Your task to perform on an android device: open app "Grab" (install if not already installed) Image 0: 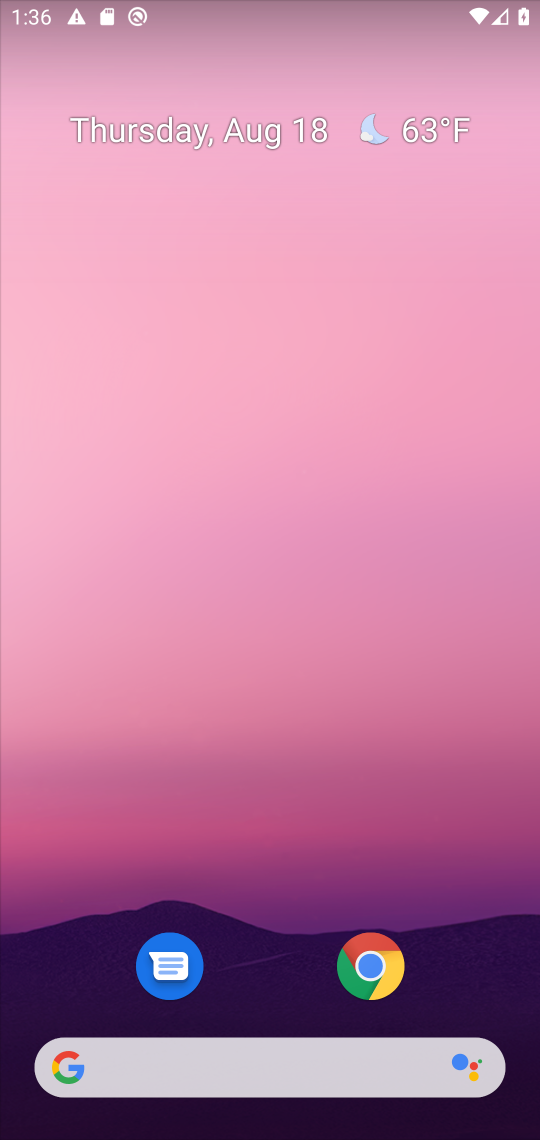
Step 0: press home button
Your task to perform on an android device: open app "Grab" (install if not already installed) Image 1: 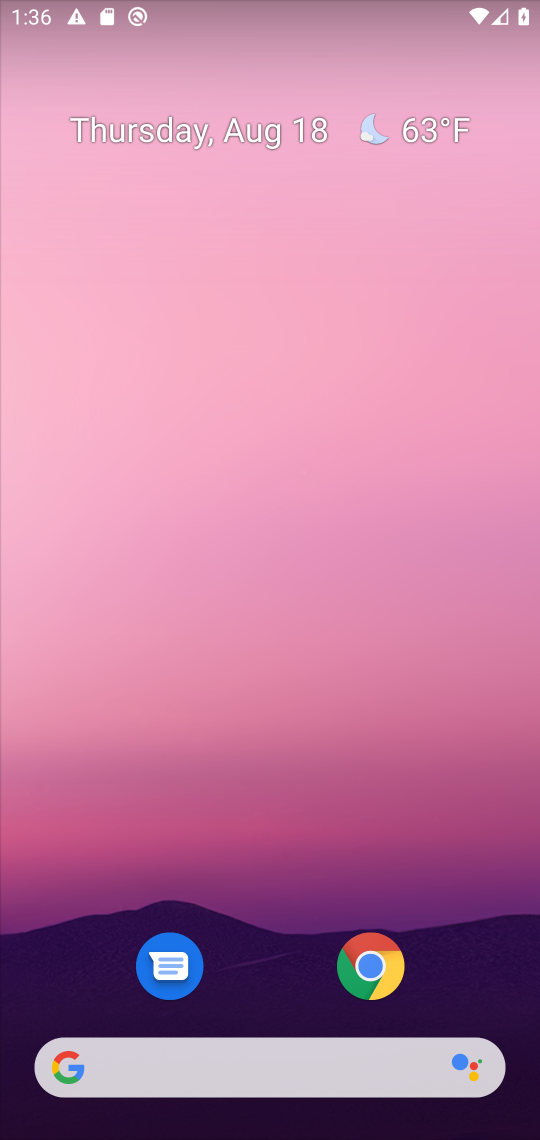
Step 1: drag from (272, 1022) to (379, 3)
Your task to perform on an android device: open app "Grab" (install if not already installed) Image 2: 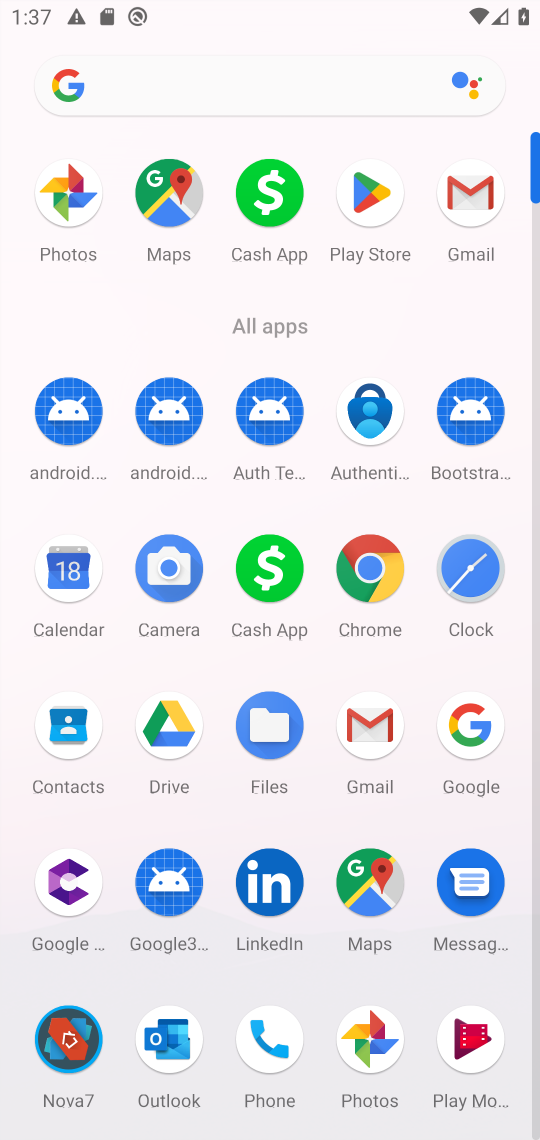
Step 2: click (372, 178)
Your task to perform on an android device: open app "Grab" (install if not already installed) Image 3: 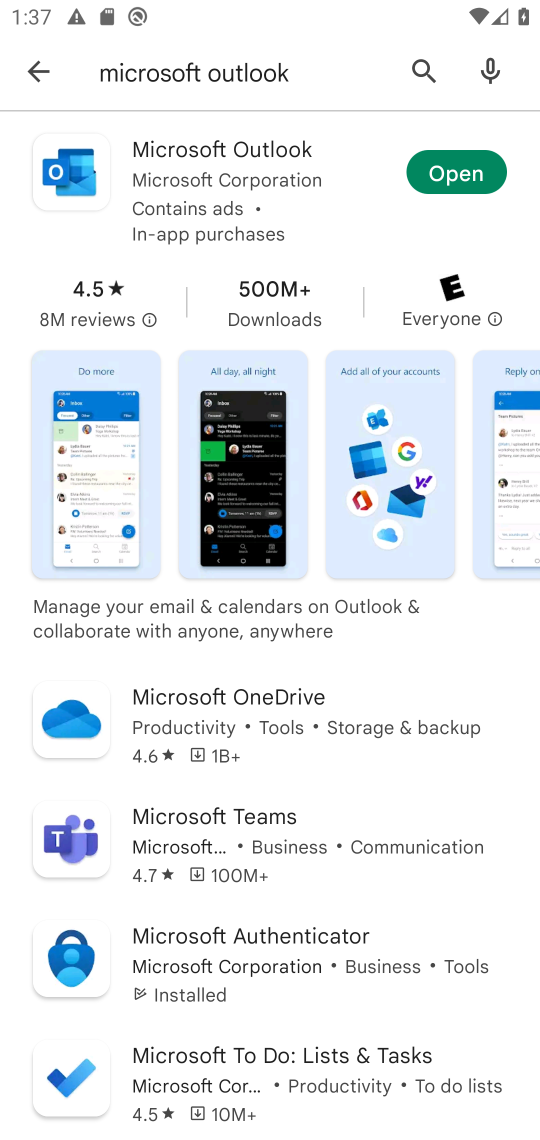
Step 3: click (430, 66)
Your task to perform on an android device: open app "Grab" (install if not already installed) Image 4: 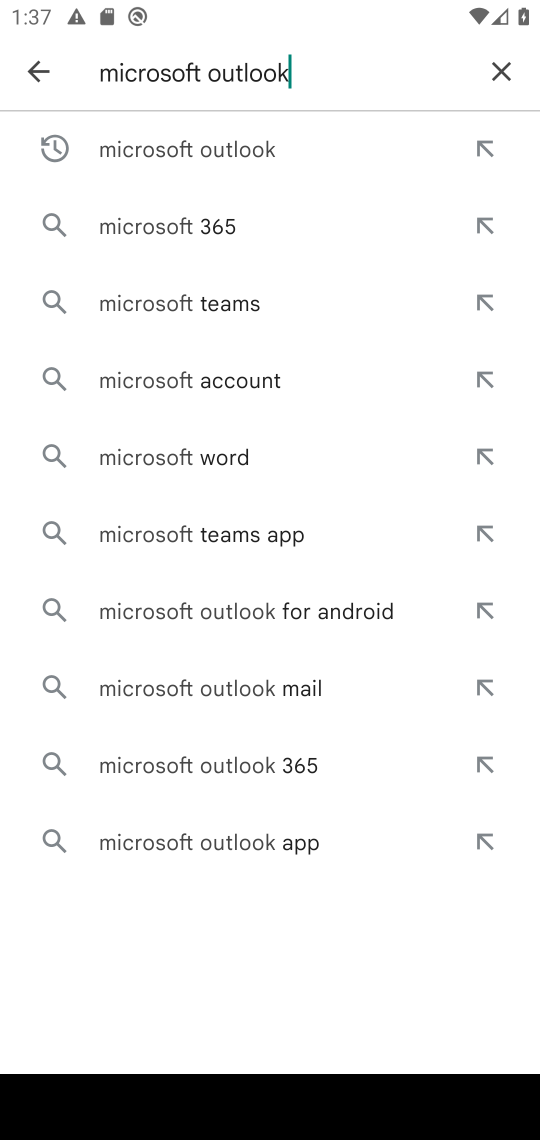
Step 4: drag from (301, 73) to (213, 76)
Your task to perform on an android device: open app "Grab" (install if not already installed) Image 5: 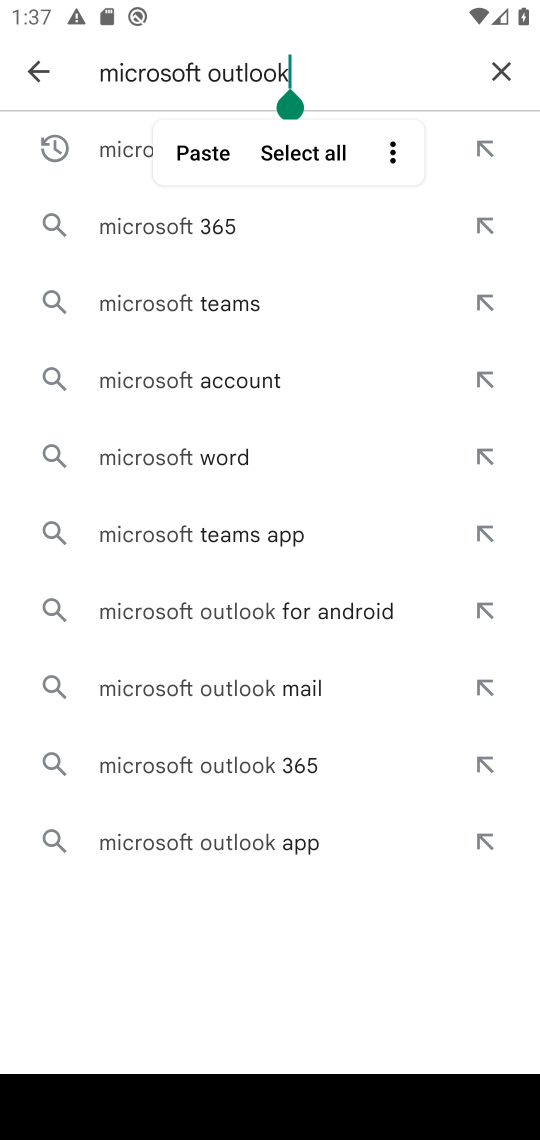
Step 5: click (227, 75)
Your task to perform on an android device: open app "Grab" (install if not already installed) Image 6: 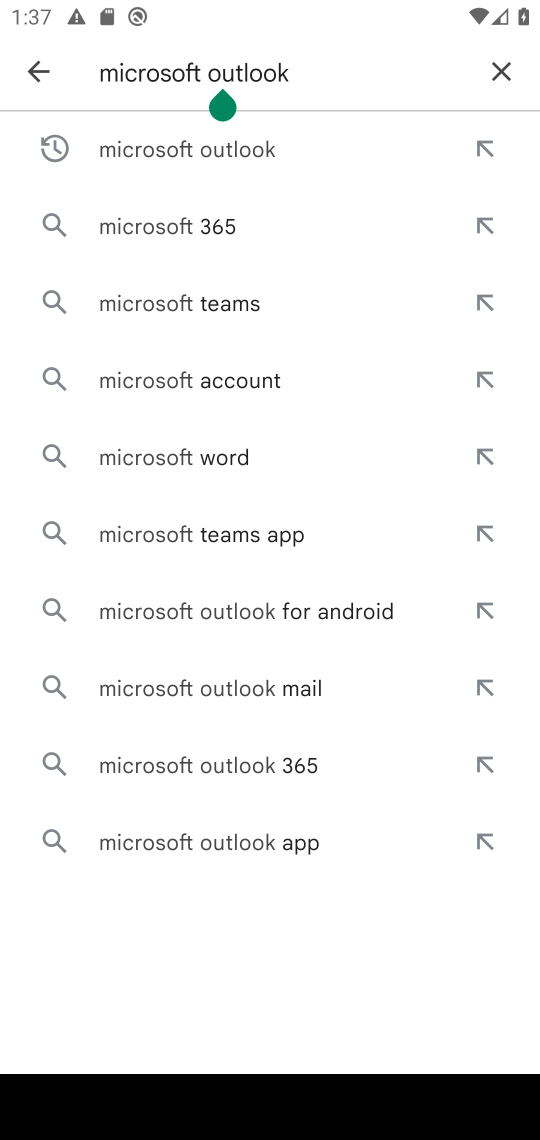
Step 6: click (277, 143)
Your task to perform on an android device: open app "Grab" (install if not already installed) Image 7: 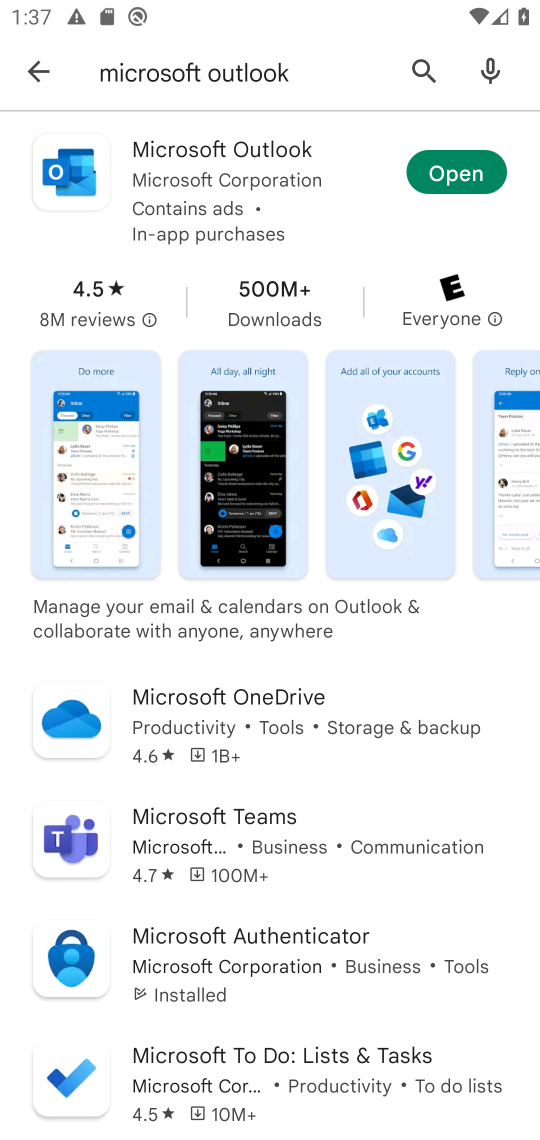
Step 7: click (46, 71)
Your task to perform on an android device: open app "Grab" (install if not already installed) Image 8: 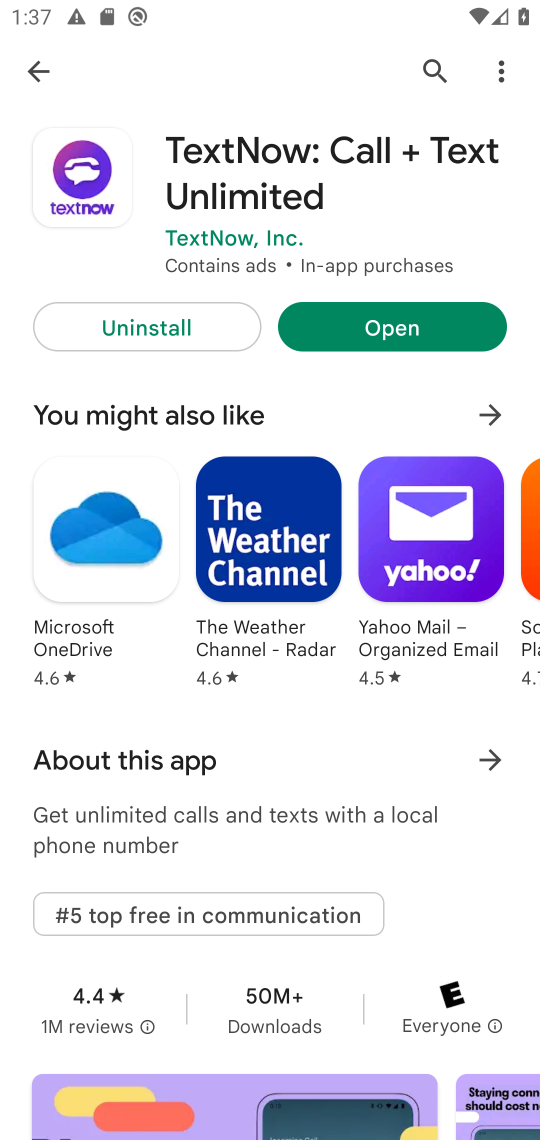
Step 8: click (39, 69)
Your task to perform on an android device: open app "Grab" (install if not already installed) Image 9: 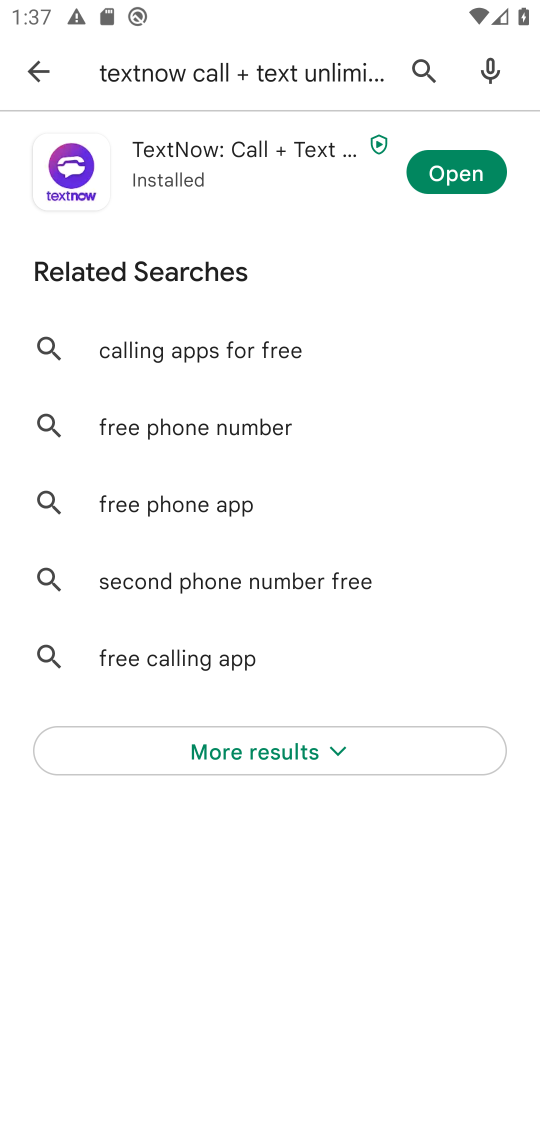
Step 9: click (420, 66)
Your task to perform on an android device: open app "Grab" (install if not already installed) Image 10: 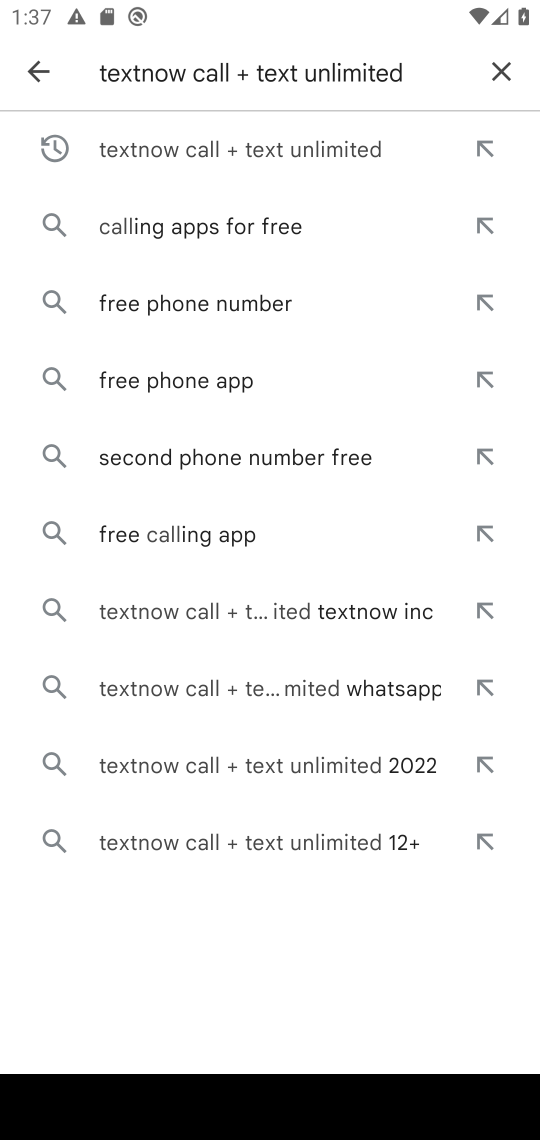
Step 10: click (497, 69)
Your task to perform on an android device: open app "Grab" (install if not already installed) Image 11: 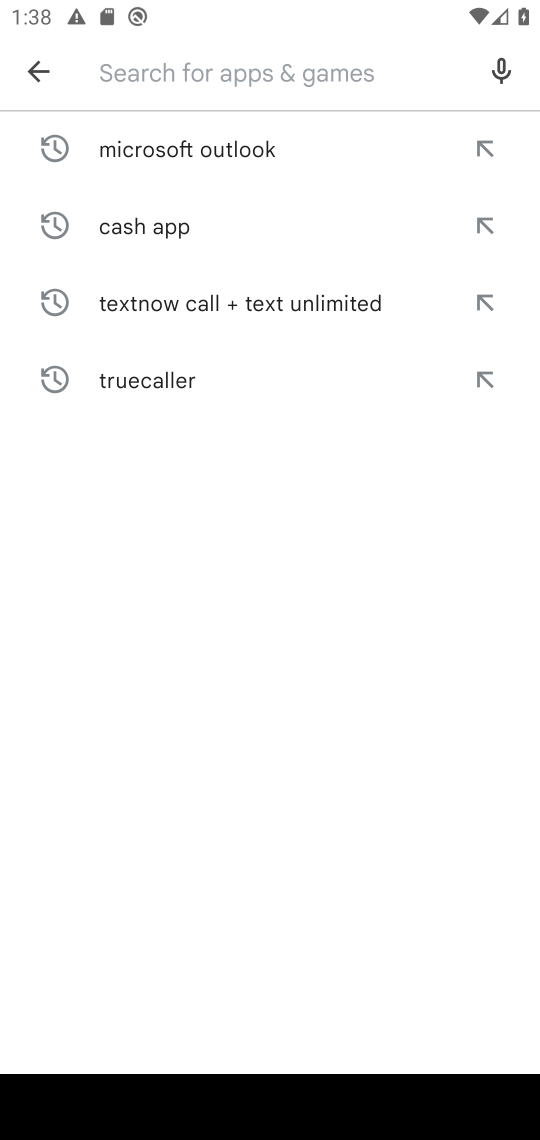
Step 11: type "Grab"
Your task to perform on an android device: open app "Grab" (install if not already installed) Image 12: 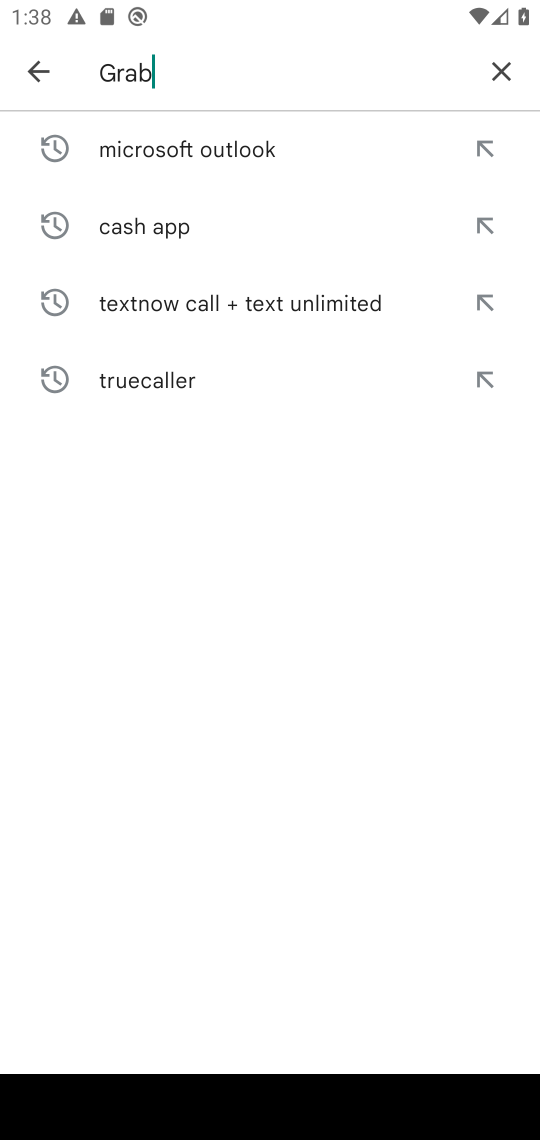
Step 12: type ""
Your task to perform on an android device: open app "Grab" (install if not already installed) Image 13: 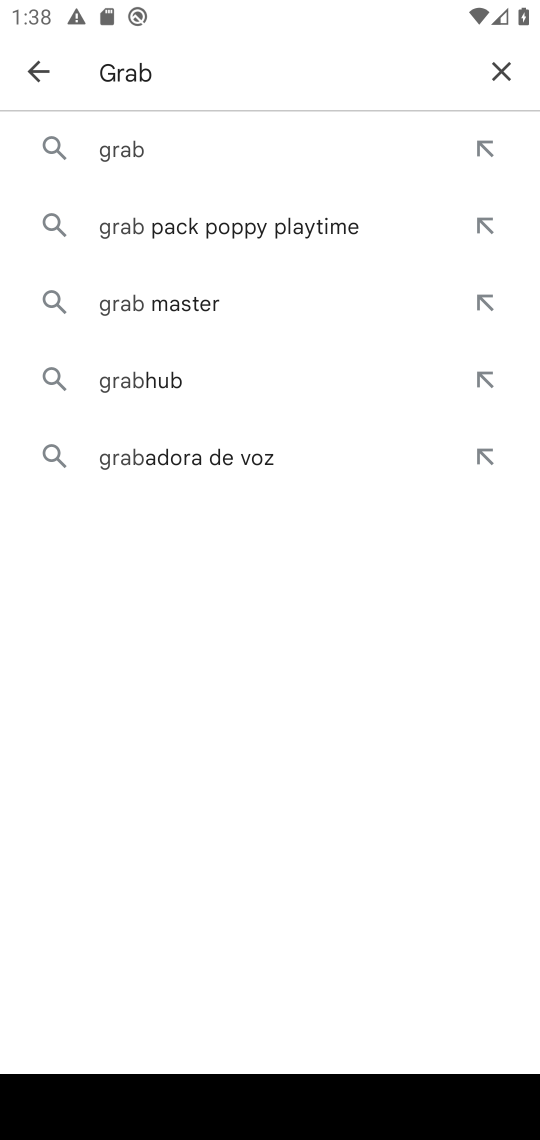
Step 13: click (130, 141)
Your task to perform on an android device: open app "Grab" (install if not already installed) Image 14: 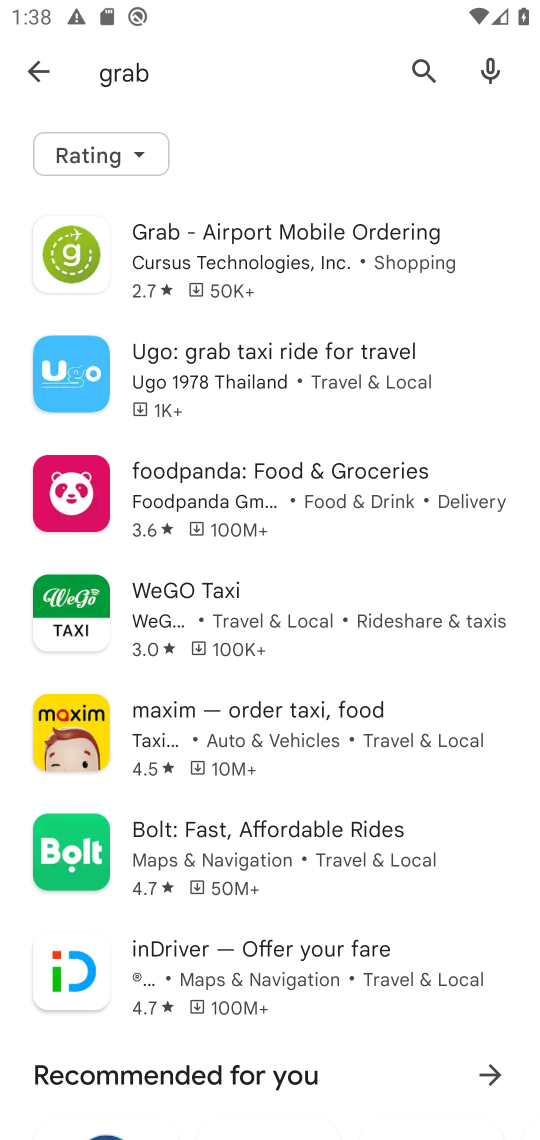
Step 14: click (214, 269)
Your task to perform on an android device: open app "Grab" (install if not already installed) Image 15: 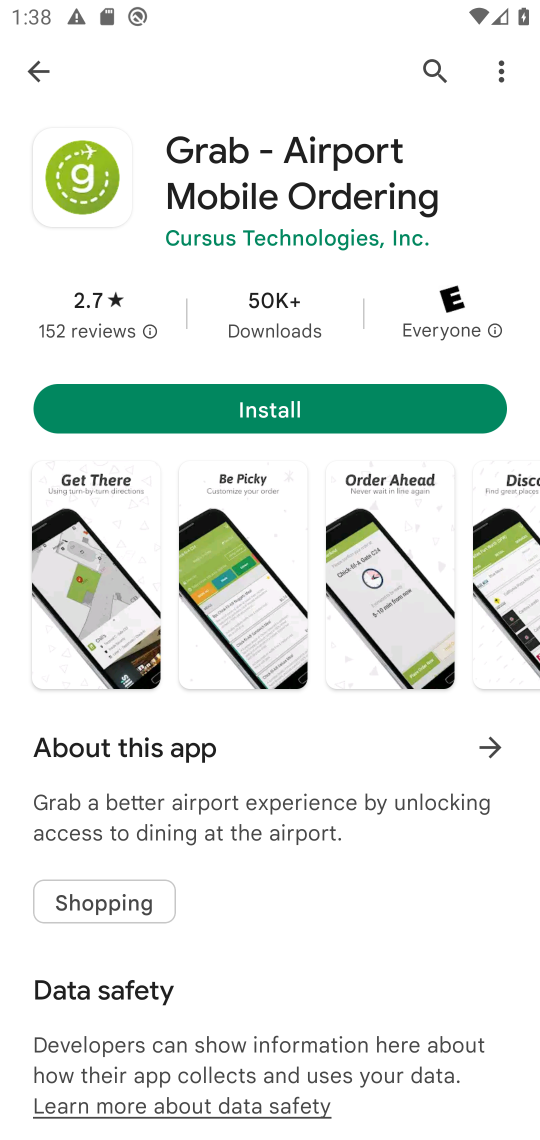
Step 15: click (273, 413)
Your task to perform on an android device: open app "Grab" (install if not already installed) Image 16: 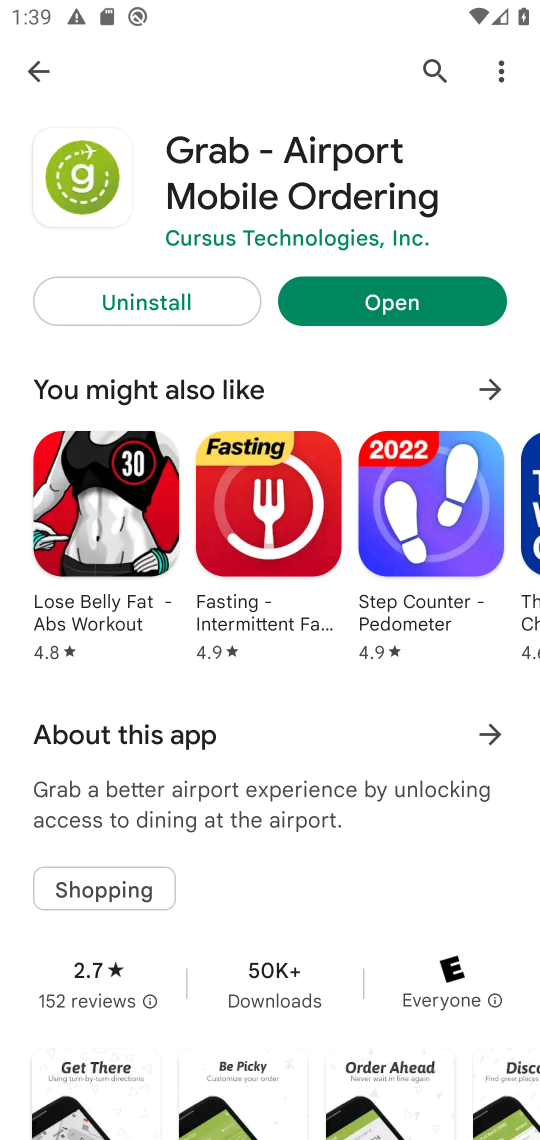
Step 16: click (377, 298)
Your task to perform on an android device: open app "Grab" (install if not already installed) Image 17: 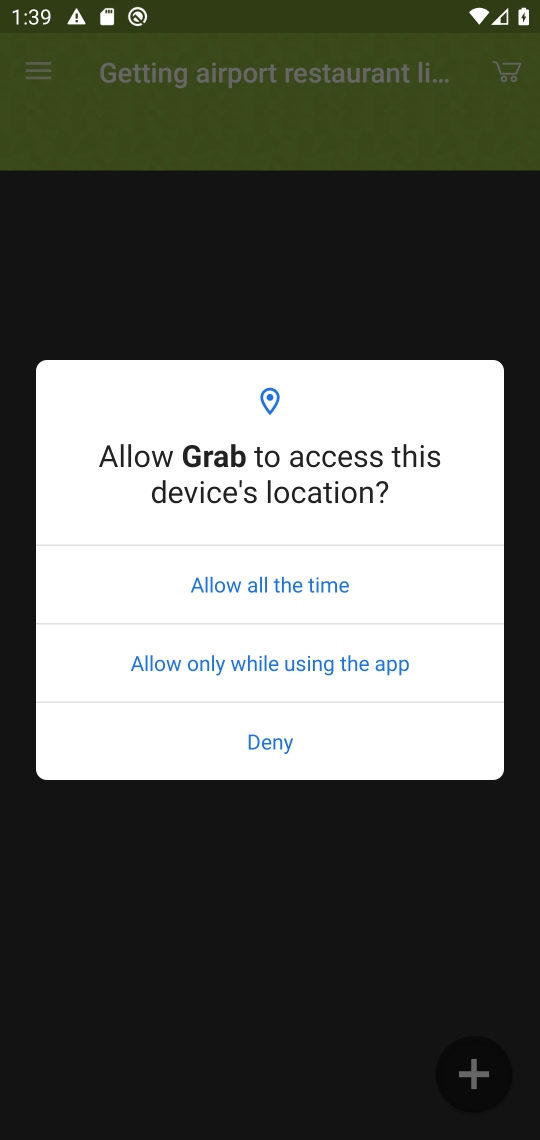
Step 17: click (272, 584)
Your task to perform on an android device: open app "Grab" (install if not already installed) Image 18: 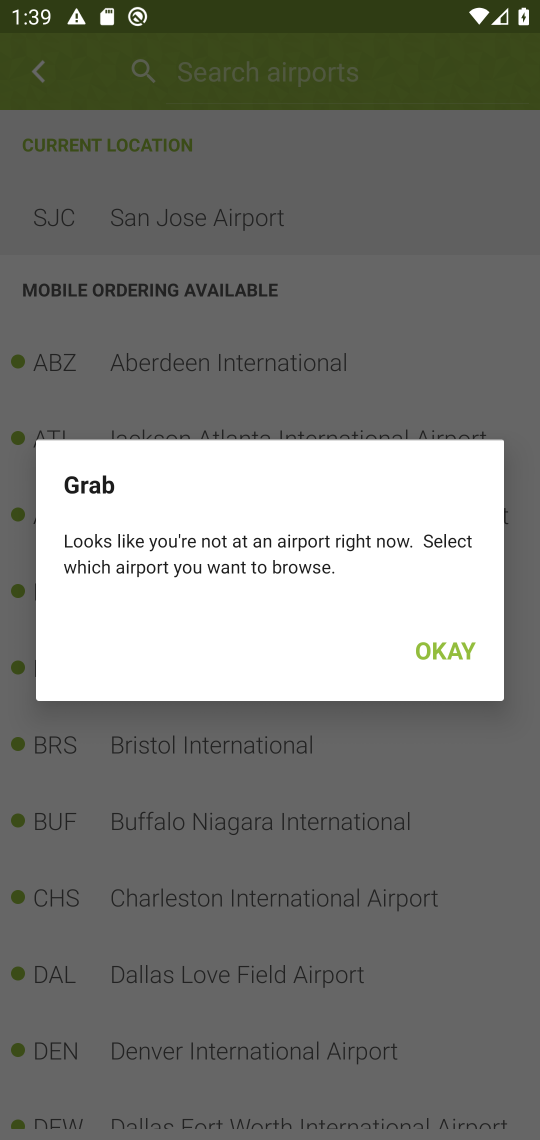
Step 18: click (457, 647)
Your task to perform on an android device: open app "Grab" (install if not already installed) Image 19: 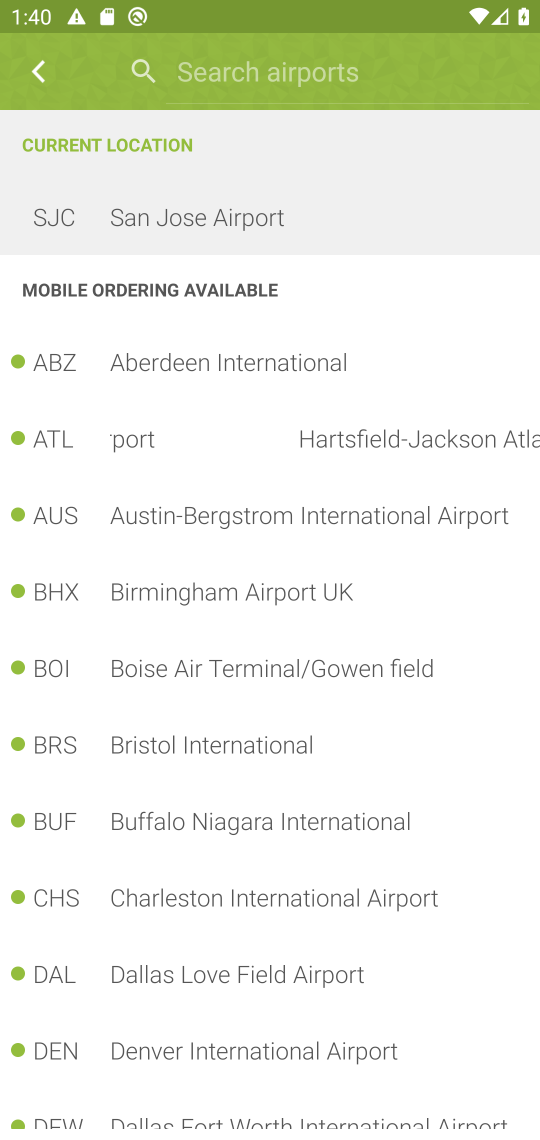
Step 19: task complete